Your task to perform on an android device: open a bookmark in the chrome app Image 0: 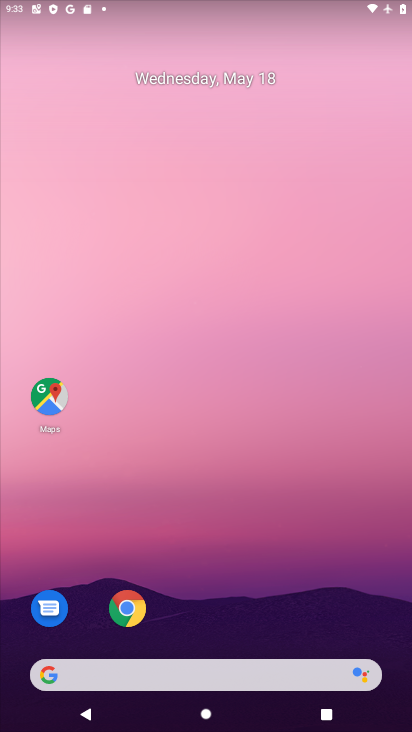
Step 0: click (141, 593)
Your task to perform on an android device: open a bookmark in the chrome app Image 1: 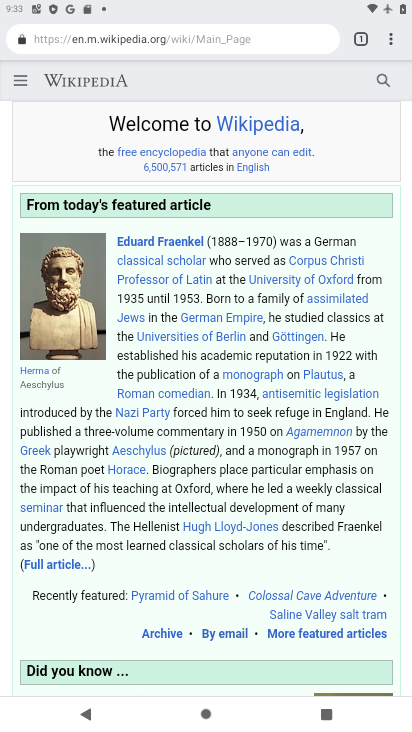
Step 1: click (379, 47)
Your task to perform on an android device: open a bookmark in the chrome app Image 2: 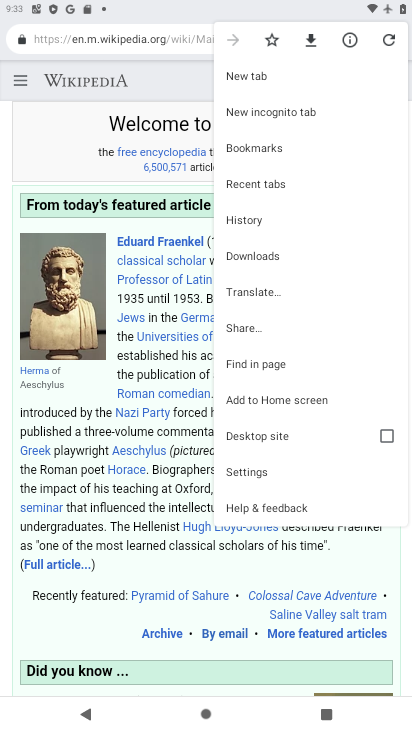
Step 2: click (295, 141)
Your task to perform on an android device: open a bookmark in the chrome app Image 3: 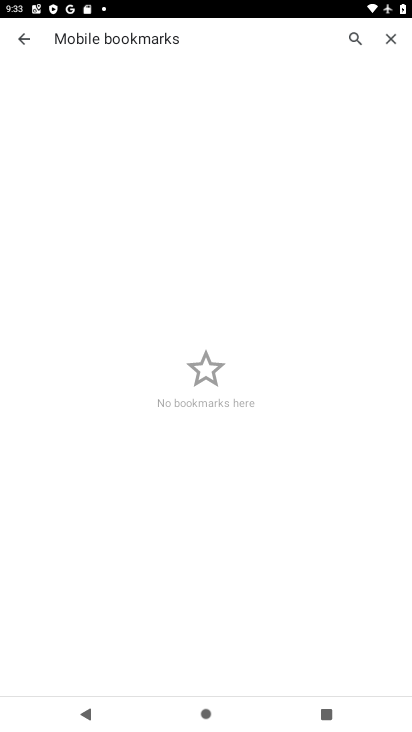
Step 3: task complete